Your task to perform on an android device: Add "razer naga" to the cart on amazon.com, then select checkout. Image 0: 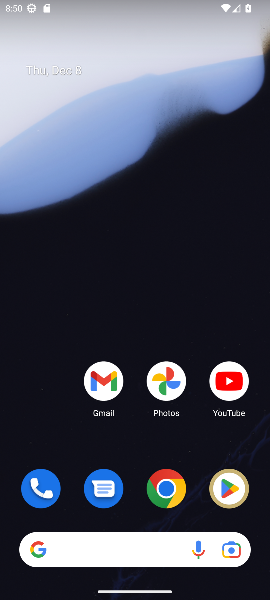
Step 0: drag from (93, 532) to (105, 9)
Your task to perform on an android device: Add "razer naga" to the cart on amazon.com, then select checkout. Image 1: 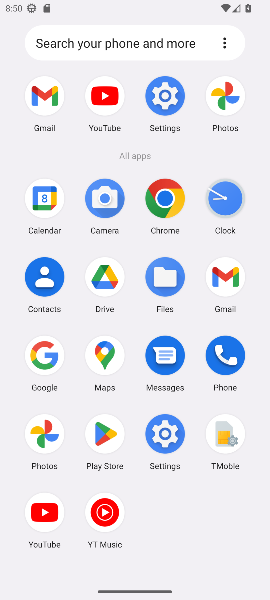
Step 1: click (48, 361)
Your task to perform on an android device: Add "razer naga" to the cart on amazon.com, then select checkout. Image 2: 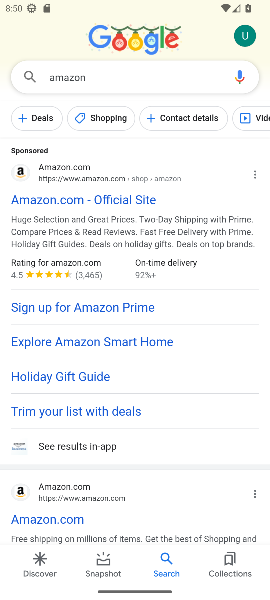
Step 2: click (59, 204)
Your task to perform on an android device: Add "razer naga" to the cart on amazon.com, then select checkout. Image 3: 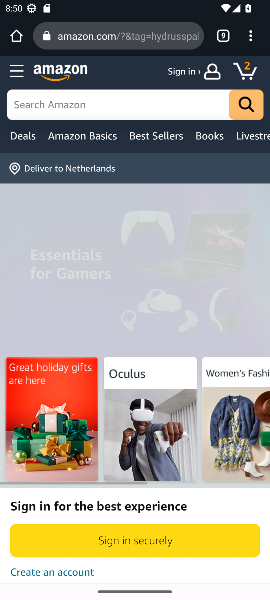
Step 3: click (38, 106)
Your task to perform on an android device: Add "razer naga" to the cart on amazon.com, then select checkout. Image 4: 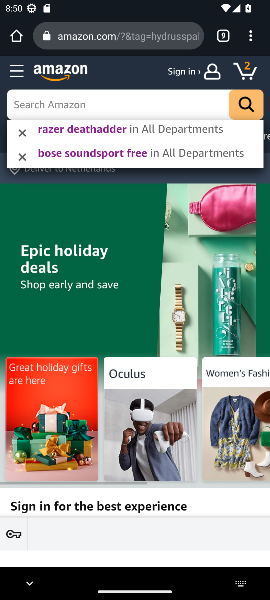
Step 4: type "razer naga"
Your task to perform on an android device: Add "razer naga" to the cart on amazon.com, then select checkout. Image 5: 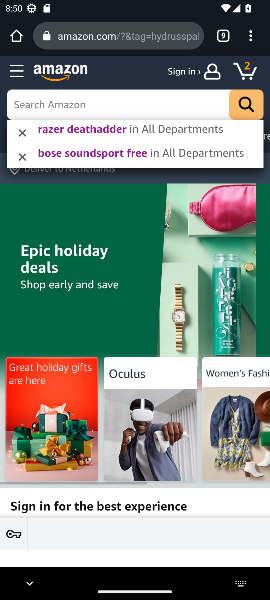
Step 5: click (235, 102)
Your task to perform on an android device: Add "razer naga" to the cart on amazon.com, then select checkout. Image 6: 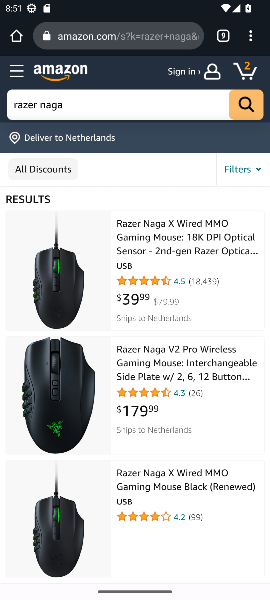
Step 6: click (176, 249)
Your task to perform on an android device: Add "razer naga" to the cart on amazon.com, then select checkout. Image 7: 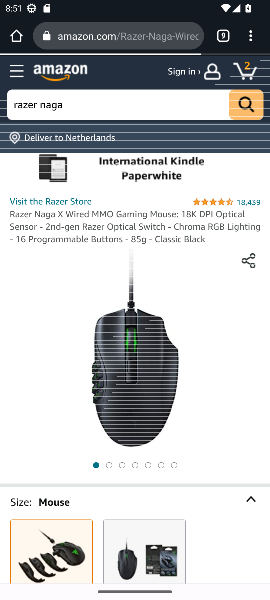
Step 7: drag from (181, 433) to (180, 257)
Your task to perform on an android device: Add "razer naga" to the cart on amazon.com, then select checkout. Image 8: 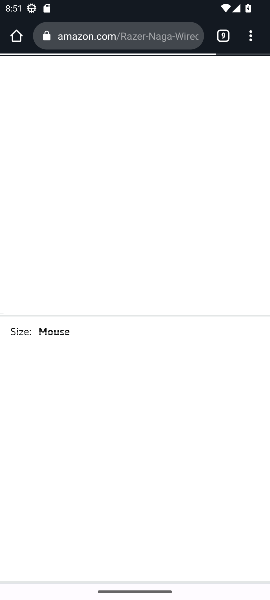
Step 8: drag from (208, 475) to (222, 267)
Your task to perform on an android device: Add "razer naga" to the cart on amazon.com, then select checkout. Image 9: 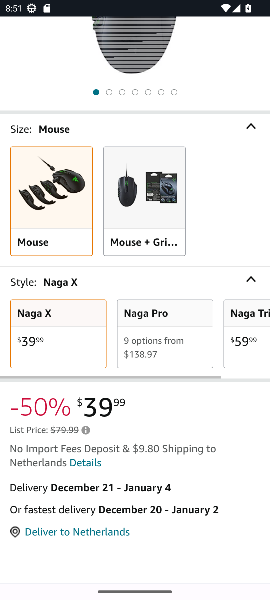
Step 9: drag from (204, 489) to (210, 277)
Your task to perform on an android device: Add "razer naga" to the cart on amazon.com, then select checkout. Image 10: 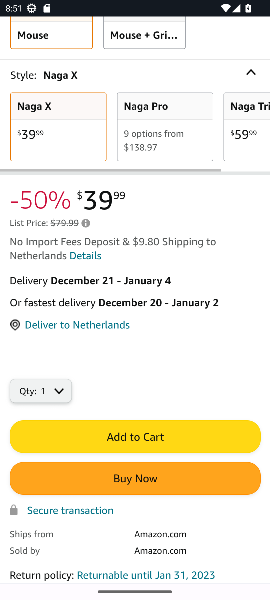
Step 10: click (149, 443)
Your task to perform on an android device: Add "razer naga" to the cart on amazon.com, then select checkout. Image 11: 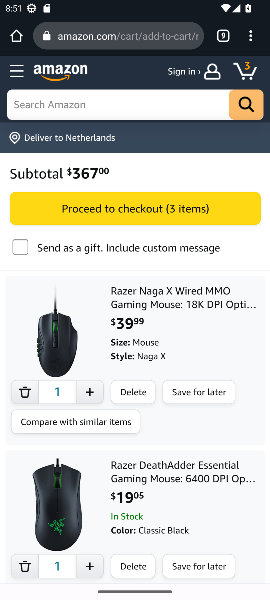
Step 11: task complete